Your task to perform on an android device: turn on translation in the chrome app Image 0: 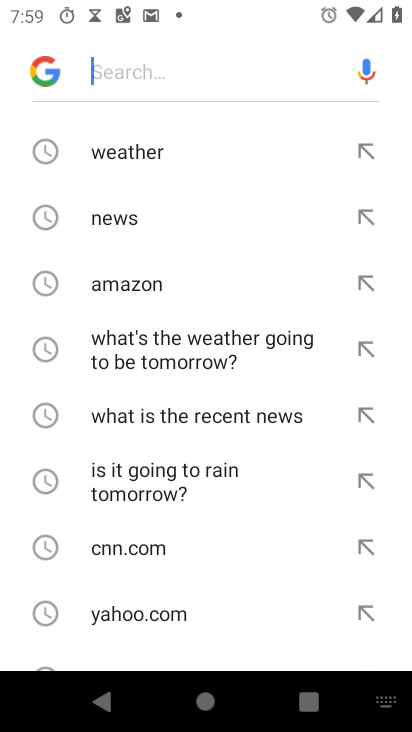
Step 0: press home button
Your task to perform on an android device: turn on translation in the chrome app Image 1: 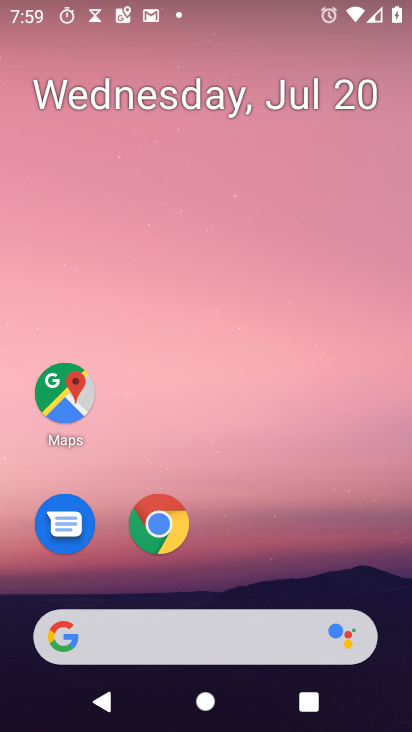
Step 1: click (159, 527)
Your task to perform on an android device: turn on translation in the chrome app Image 2: 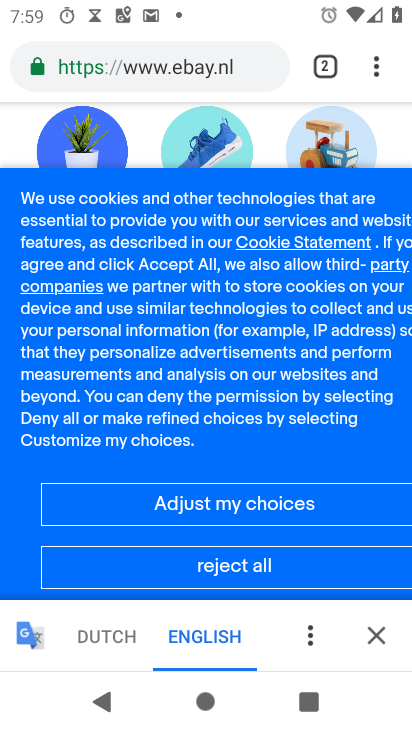
Step 2: click (378, 63)
Your task to perform on an android device: turn on translation in the chrome app Image 3: 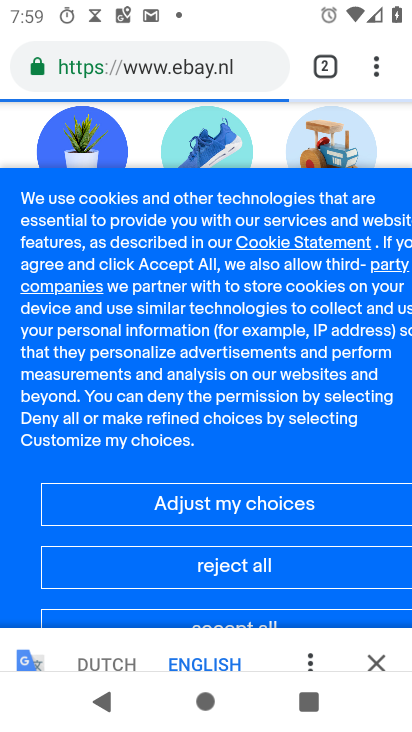
Step 3: drag from (378, 63) to (201, 528)
Your task to perform on an android device: turn on translation in the chrome app Image 4: 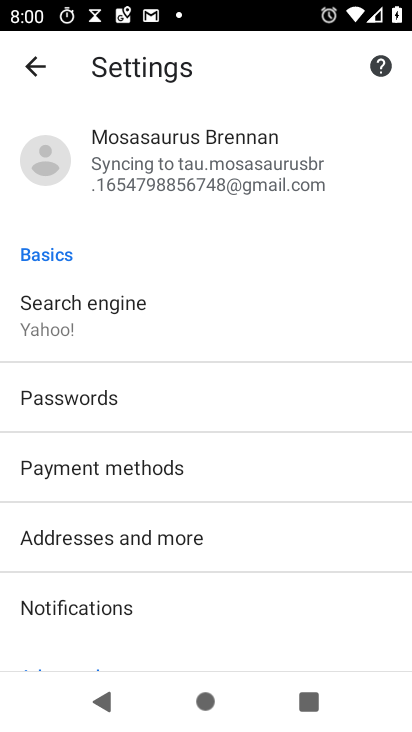
Step 4: drag from (206, 568) to (392, 143)
Your task to perform on an android device: turn on translation in the chrome app Image 5: 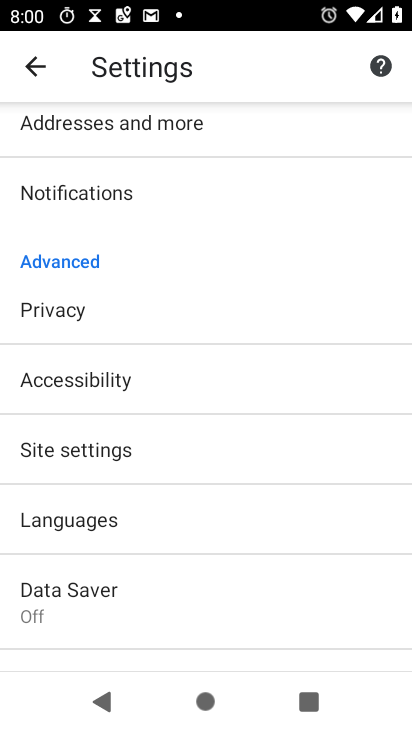
Step 5: click (100, 523)
Your task to perform on an android device: turn on translation in the chrome app Image 6: 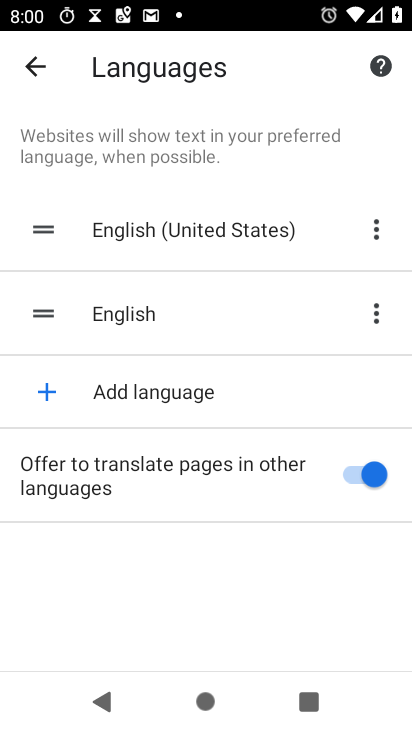
Step 6: task complete